Your task to perform on an android device: open app "Booking.com: Hotels and more" (install if not already installed) Image 0: 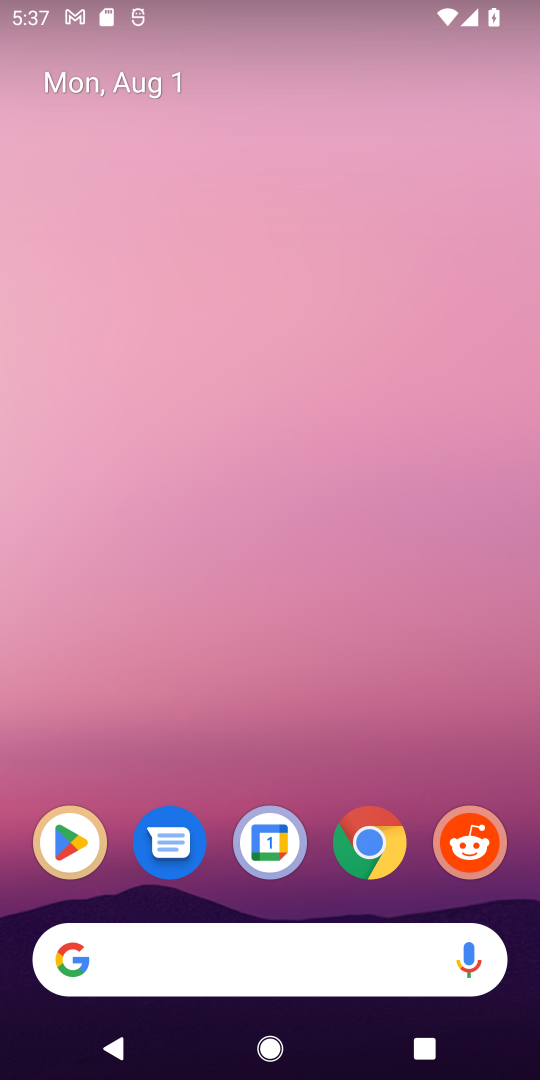
Step 0: drag from (371, 774) to (371, 335)
Your task to perform on an android device: open app "Booking.com: Hotels and more" (install if not already installed) Image 1: 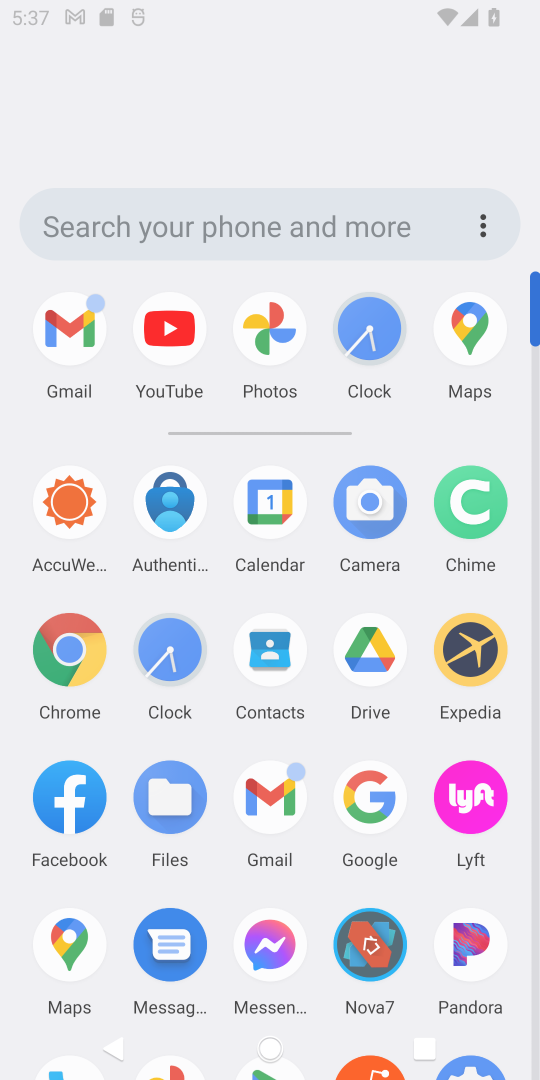
Step 1: drag from (382, 654) to (358, 339)
Your task to perform on an android device: open app "Booking.com: Hotels and more" (install if not already installed) Image 2: 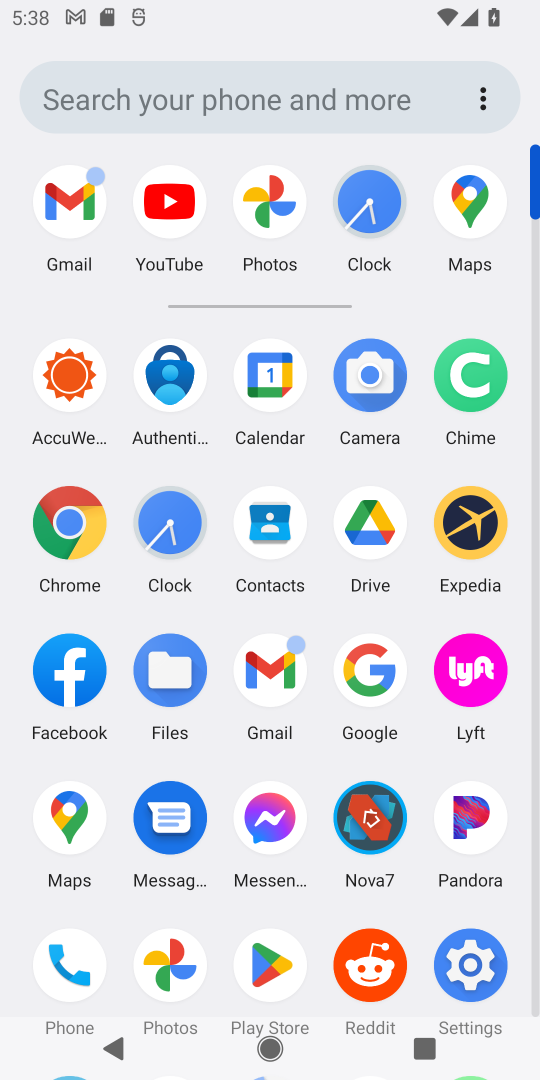
Step 2: click (272, 955)
Your task to perform on an android device: open app "Booking.com: Hotels and more" (install if not already installed) Image 3: 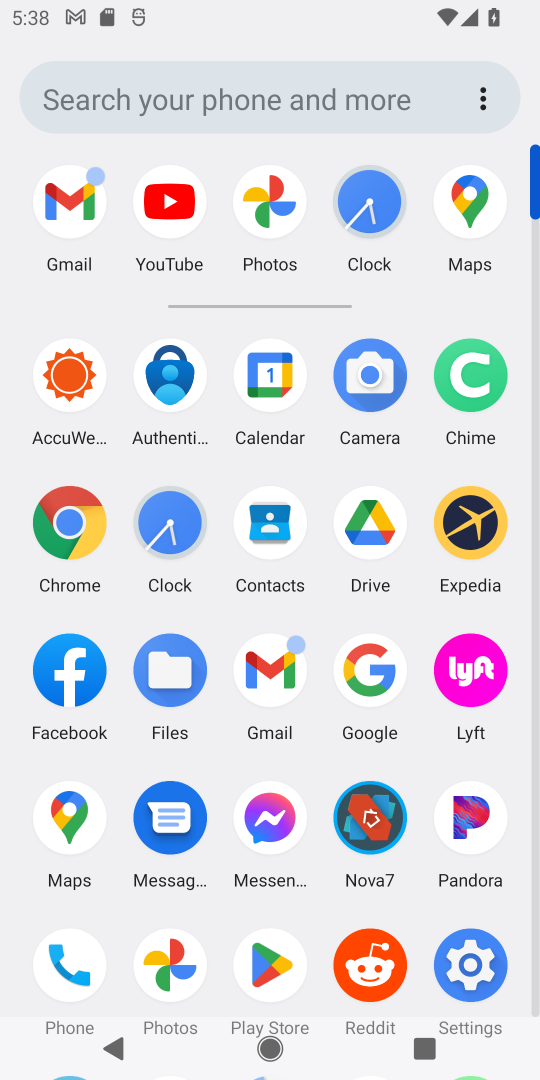
Step 3: click (278, 954)
Your task to perform on an android device: open app "Booking.com: Hotels and more" (install if not already installed) Image 4: 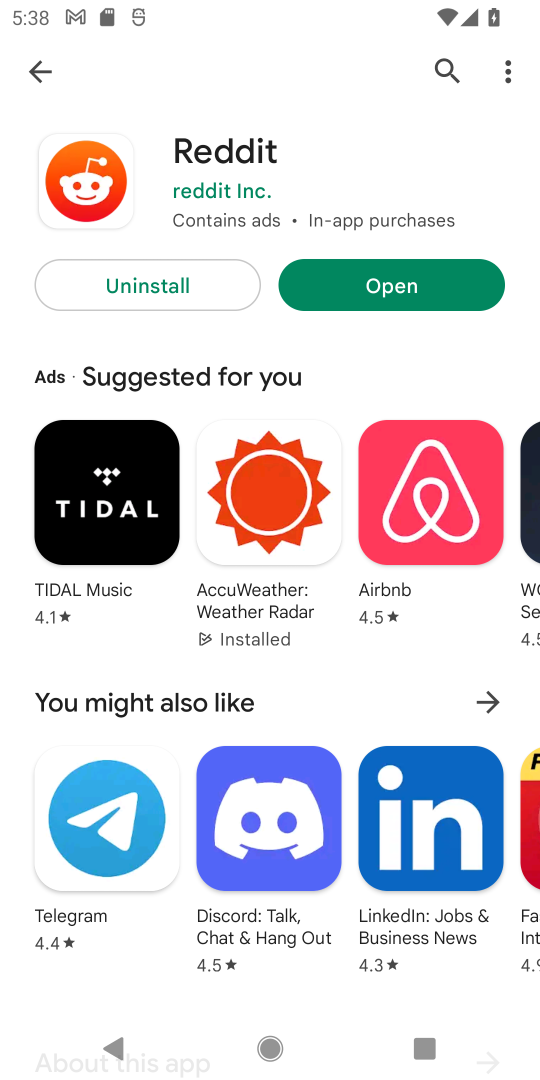
Step 4: click (44, 70)
Your task to perform on an android device: open app "Booking.com: Hotels and more" (install if not already installed) Image 5: 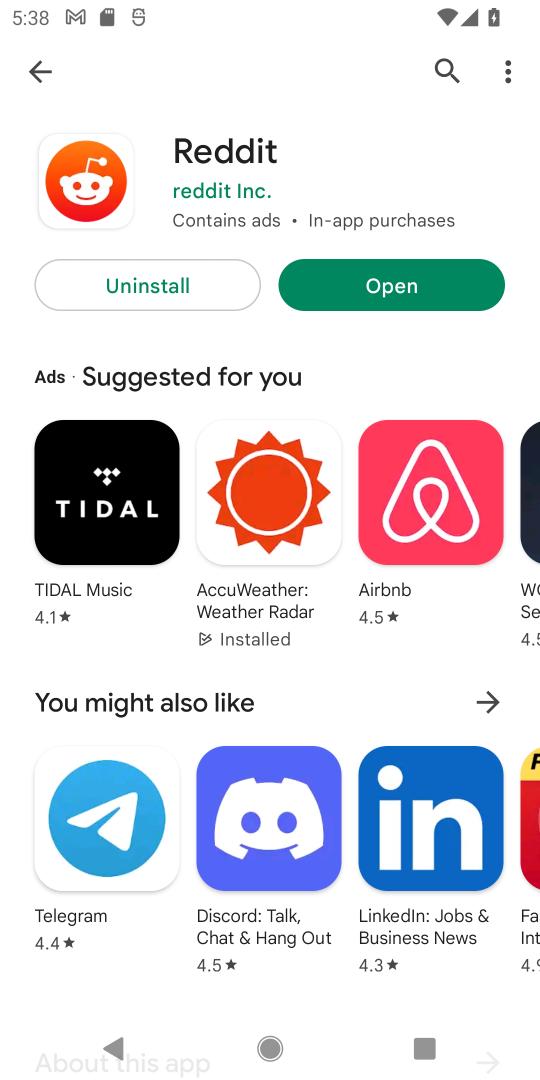
Step 5: click (35, 68)
Your task to perform on an android device: open app "Booking.com: Hotels and more" (install if not already installed) Image 6: 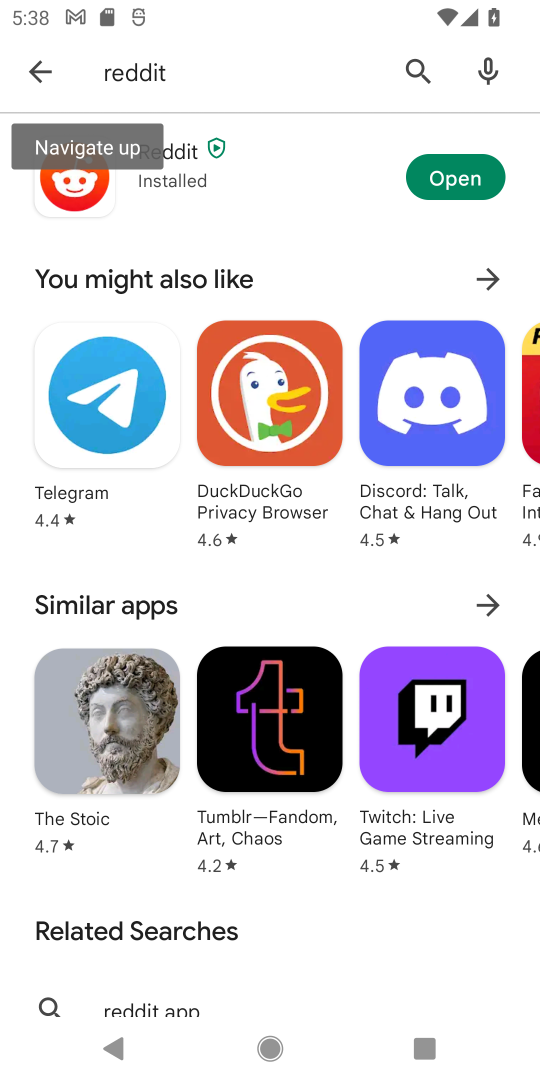
Step 6: click (34, 60)
Your task to perform on an android device: open app "Booking.com: Hotels and more" (install if not already installed) Image 7: 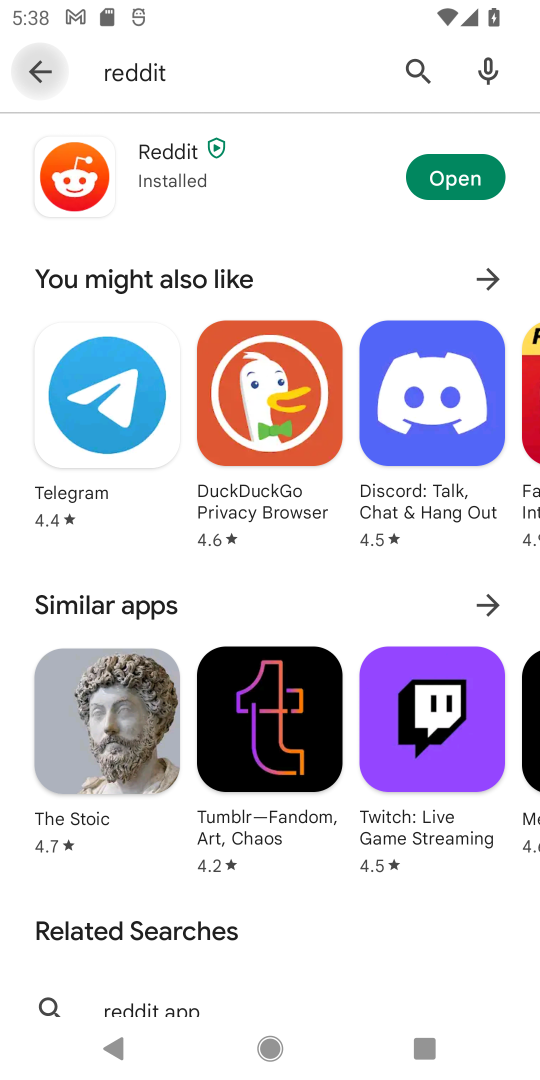
Step 7: click (41, 42)
Your task to perform on an android device: open app "Booking.com: Hotels and more" (install if not already installed) Image 8: 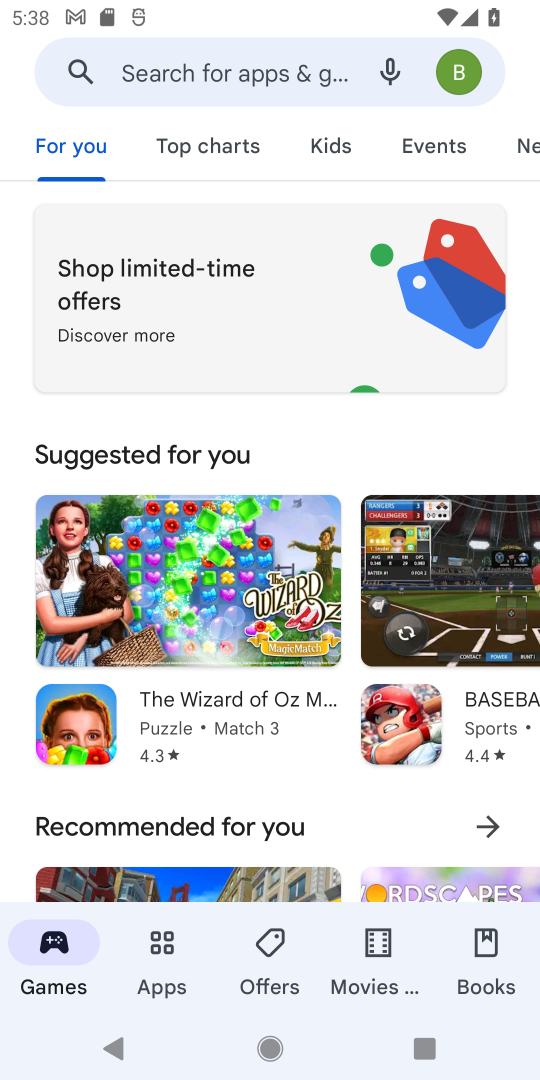
Step 8: click (141, 58)
Your task to perform on an android device: open app "Booking.com: Hotels and more" (install if not already installed) Image 9: 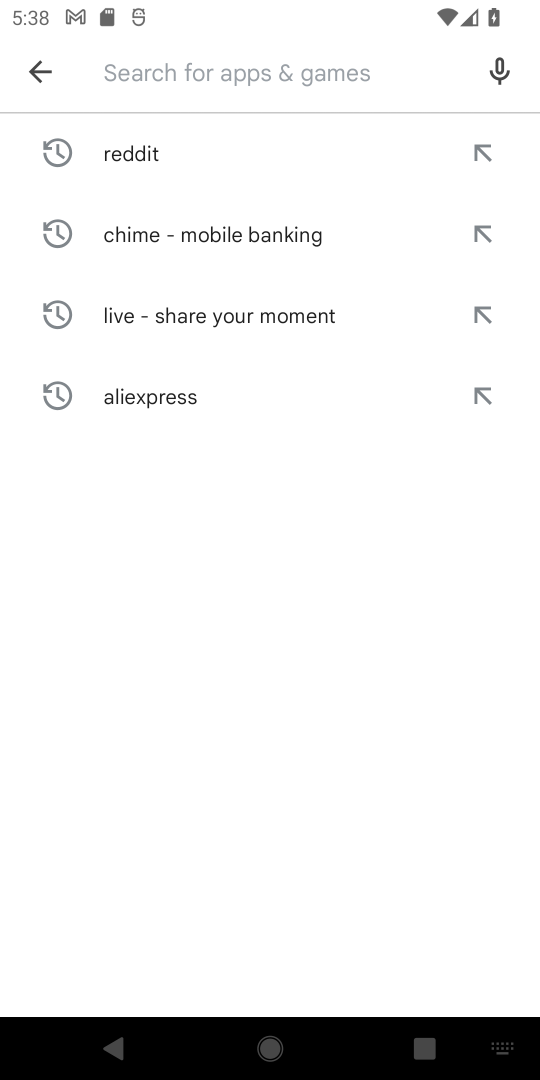
Step 9: type "booking .com: hotels and more"
Your task to perform on an android device: open app "Booking.com: Hotels and more" (install if not already installed) Image 10: 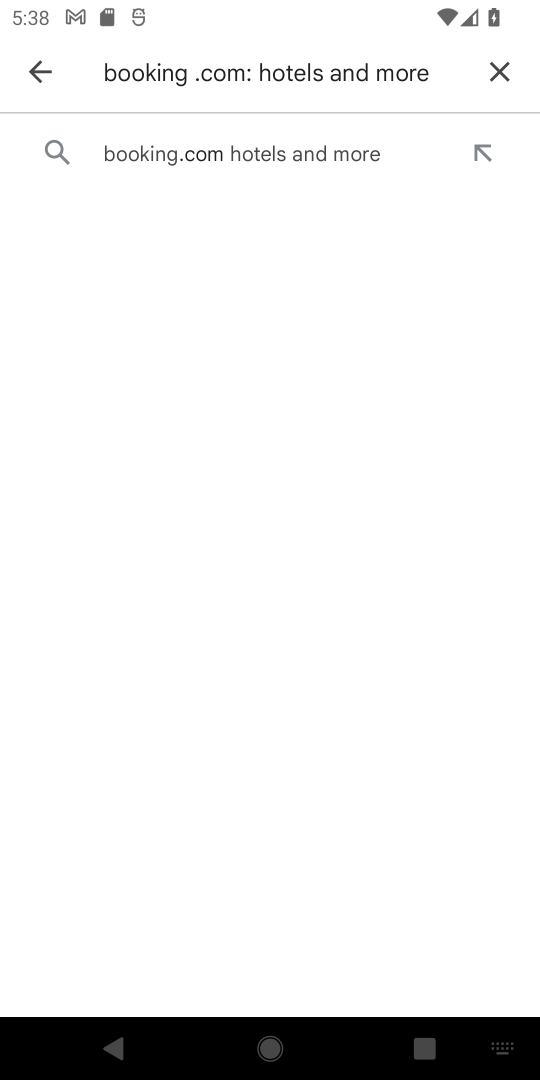
Step 10: click (292, 139)
Your task to perform on an android device: open app "Booking.com: Hotels and more" (install if not already installed) Image 11: 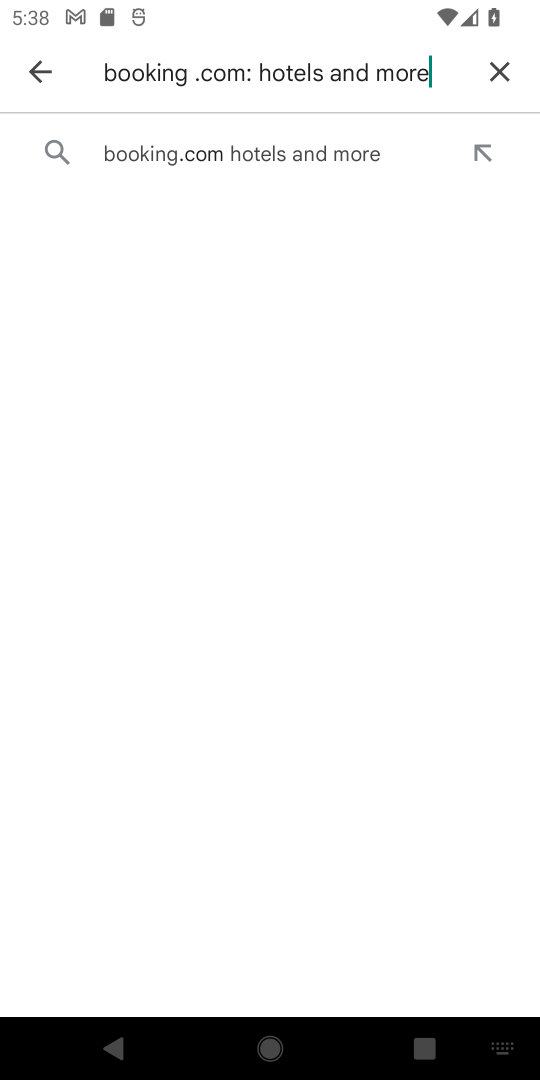
Step 11: click (291, 143)
Your task to perform on an android device: open app "Booking.com: Hotels and more" (install if not already installed) Image 12: 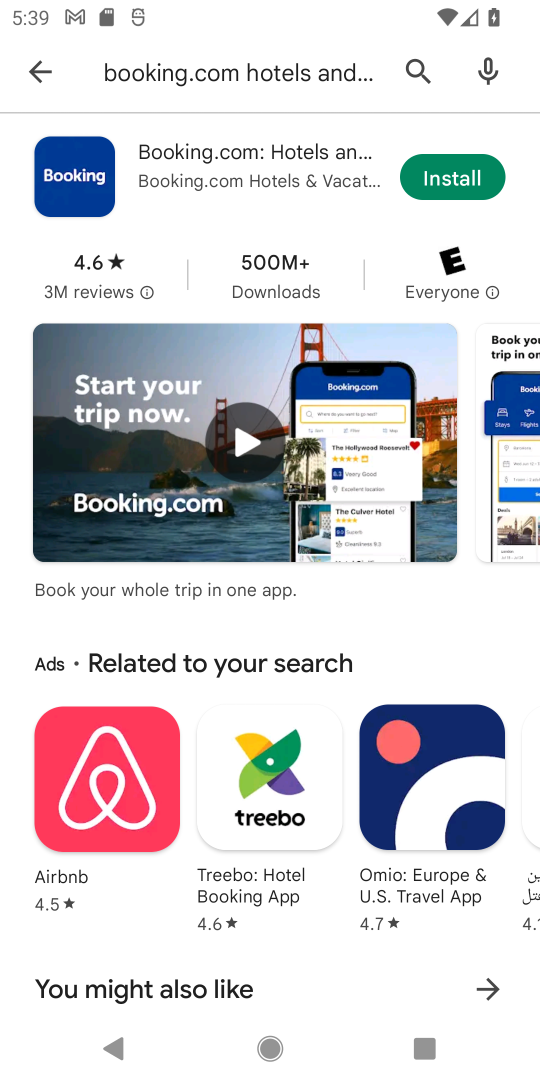
Step 12: click (469, 176)
Your task to perform on an android device: open app "Booking.com: Hotels and more" (install if not already installed) Image 13: 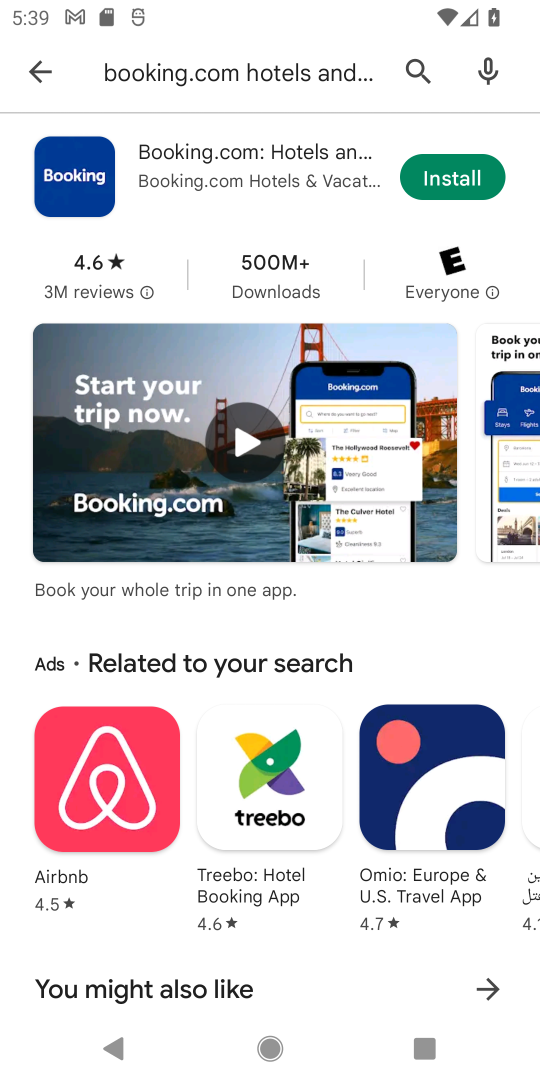
Step 13: click (465, 172)
Your task to perform on an android device: open app "Booking.com: Hotels and more" (install if not already installed) Image 14: 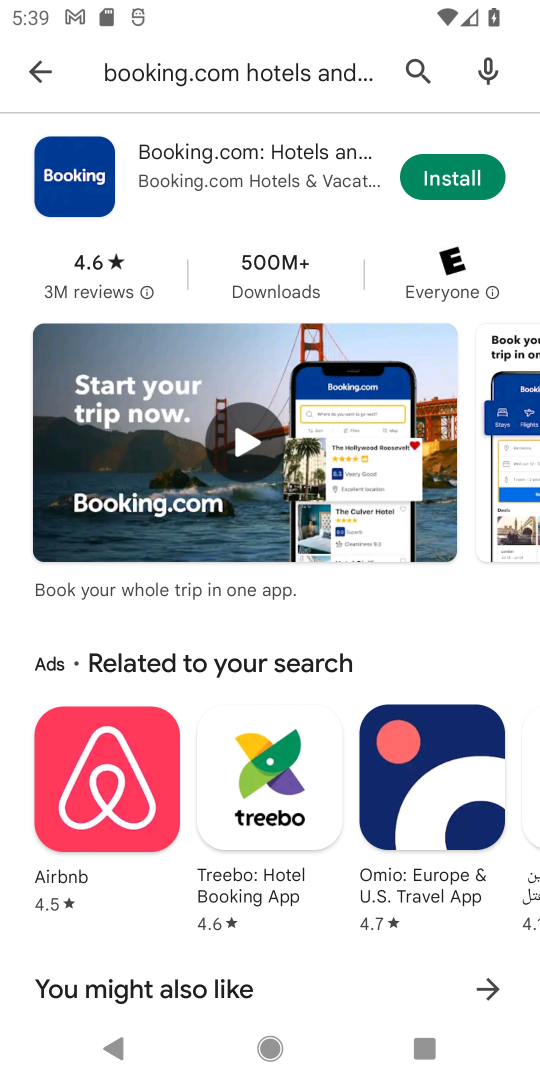
Step 14: click (415, 169)
Your task to perform on an android device: open app "Booking.com: Hotels and more" (install if not already installed) Image 15: 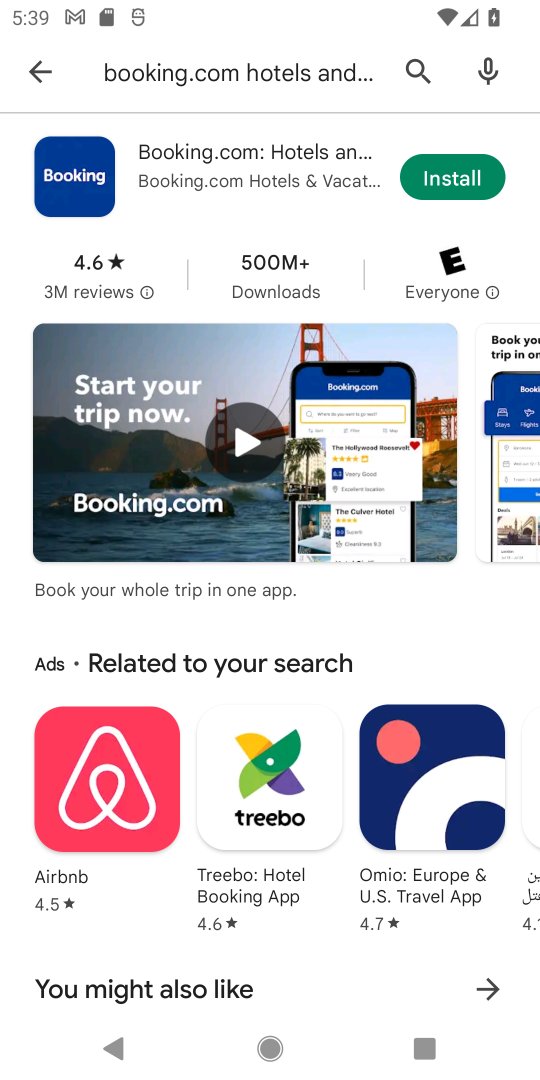
Step 15: click (416, 167)
Your task to perform on an android device: open app "Booking.com: Hotels and more" (install if not already installed) Image 16: 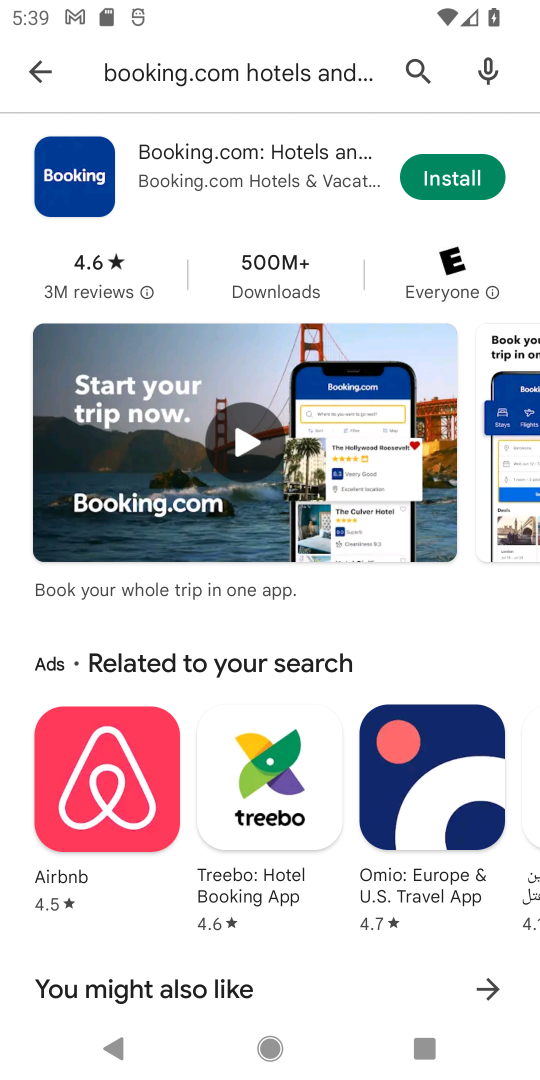
Step 16: click (435, 178)
Your task to perform on an android device: open app "Booking.com: Hotels and more" (install if not already installed) Image 17: 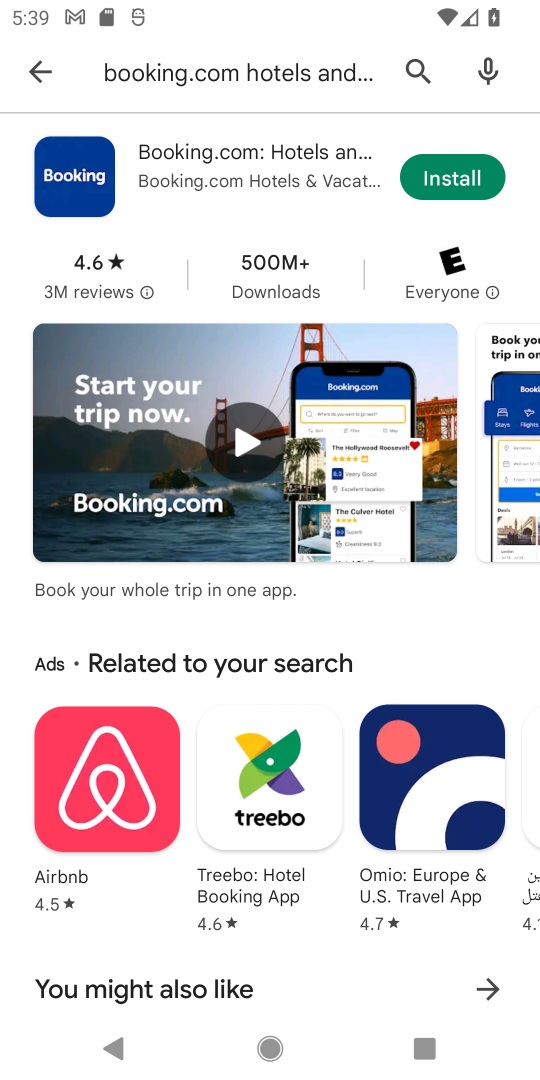
Step 17: click (435, 178)
Your task to perform on an android device: open app "Booking.com: Hotels and more" (install if not already installed) Image 18: 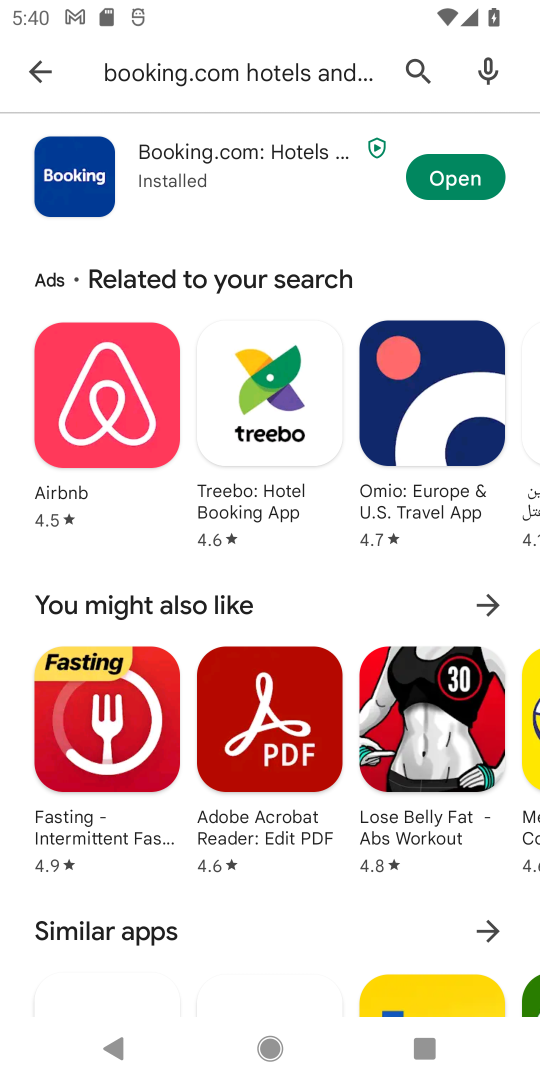
Step 18: click (490, 190)
Your task to perform on an android device: open app "Booking.com: Hotels and more" (install if not already installed) Image 19: 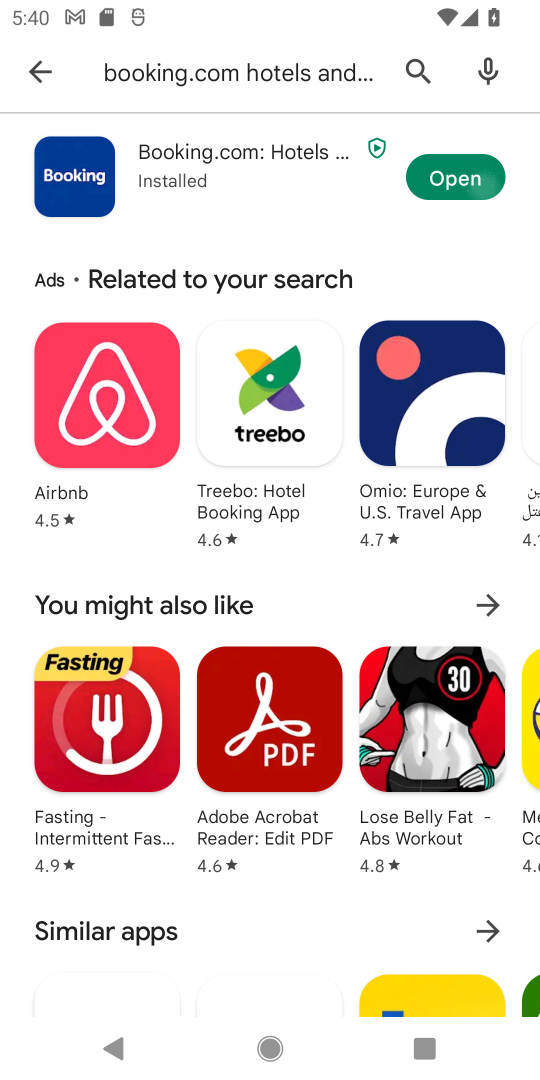
Step 19: click (489, 187)
Your task to perform on an android device: open app "Booking.com: Hotels and more" (install if not already installed) Image 20: 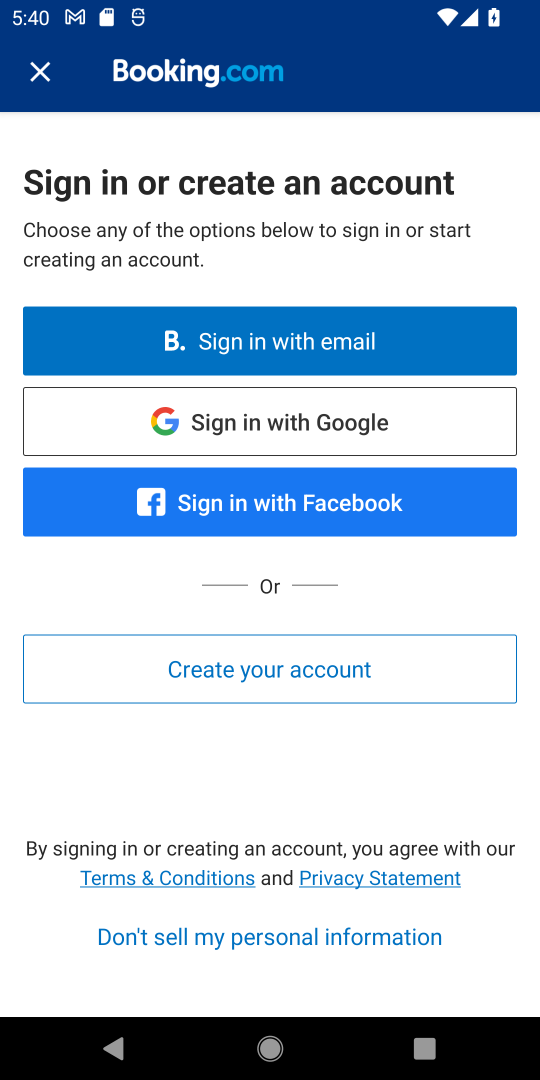
Step 20: press back button
Your task to perform on an android device: open app "Booking.com: Hotels and more" (install if not already installed) Image 21: 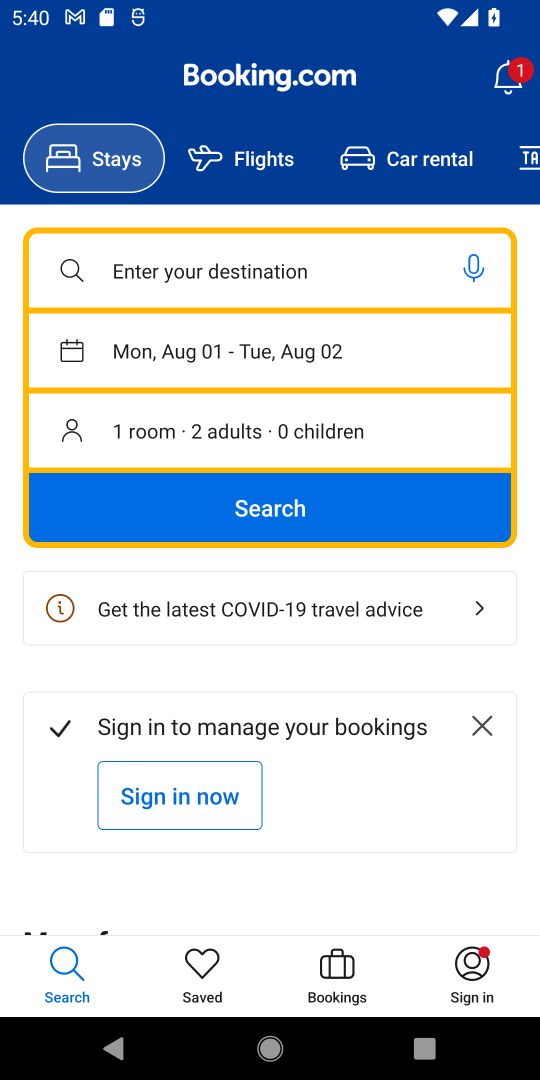
Step 21: press home button
Your task to perform on an android device: open app "Booking.com: Hotels and more" (install if not already installed) Image 22: 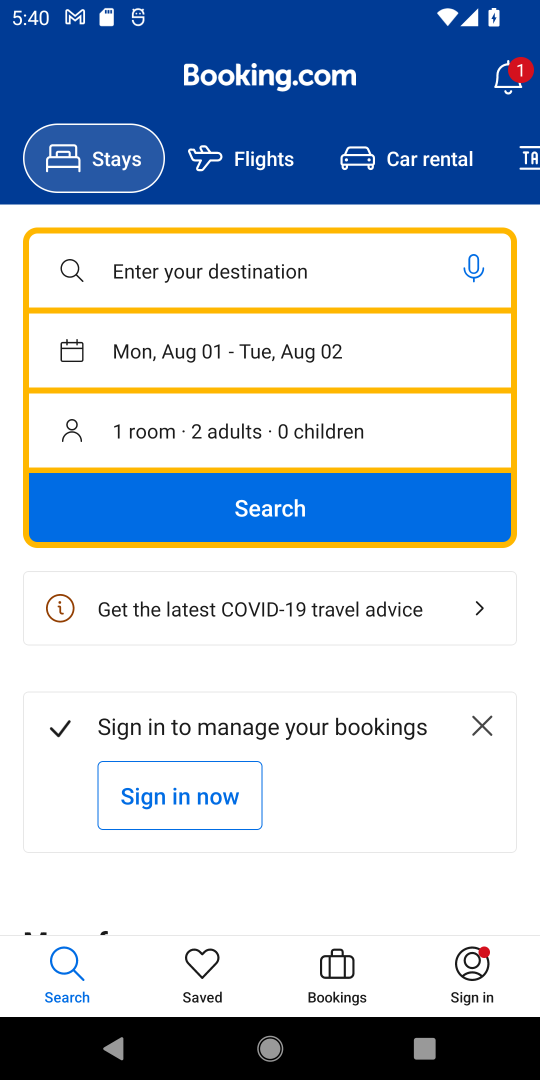
Step 22: press home button
Your task to perform on an android device: open app "Booking.com: Hotels and more" (install if not already installed) Image 23: 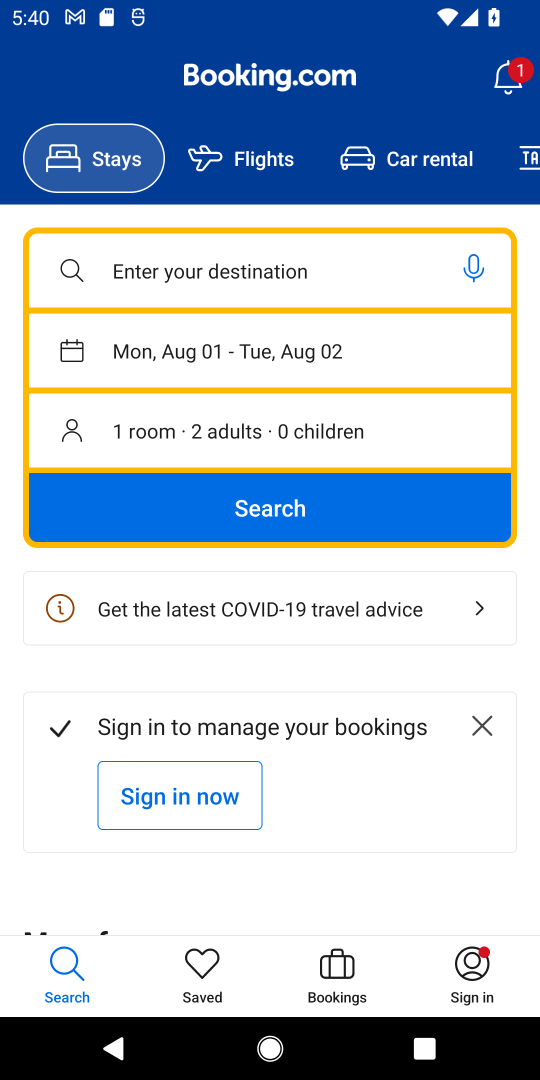
Step 23: press home button
Your task to perform on an android device: open app "Booking.com: Hotels and more" (install if not already installed) Image 24: 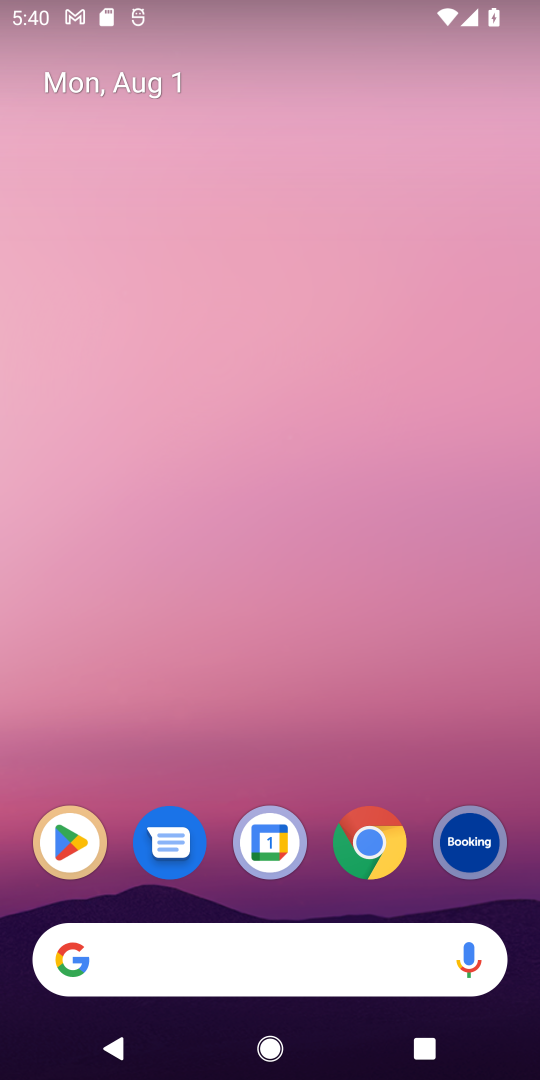
Step 24: drag from (357, 705) to (234, 148)
Your task to perform on an android device: open app "Booking.com: Hotels and more" (install if not already installed) Image 25: 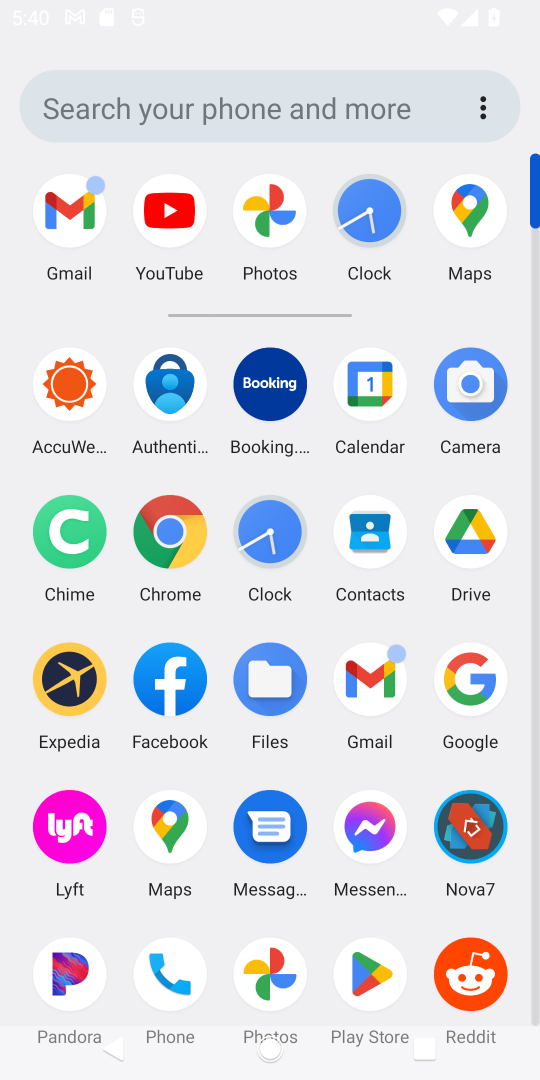
Step 25: drag from (298, 493) to (253, 84)
Your task to perform on an android device: open app "Booking.com: Hotels and more" (install if not already installed) Image 26: 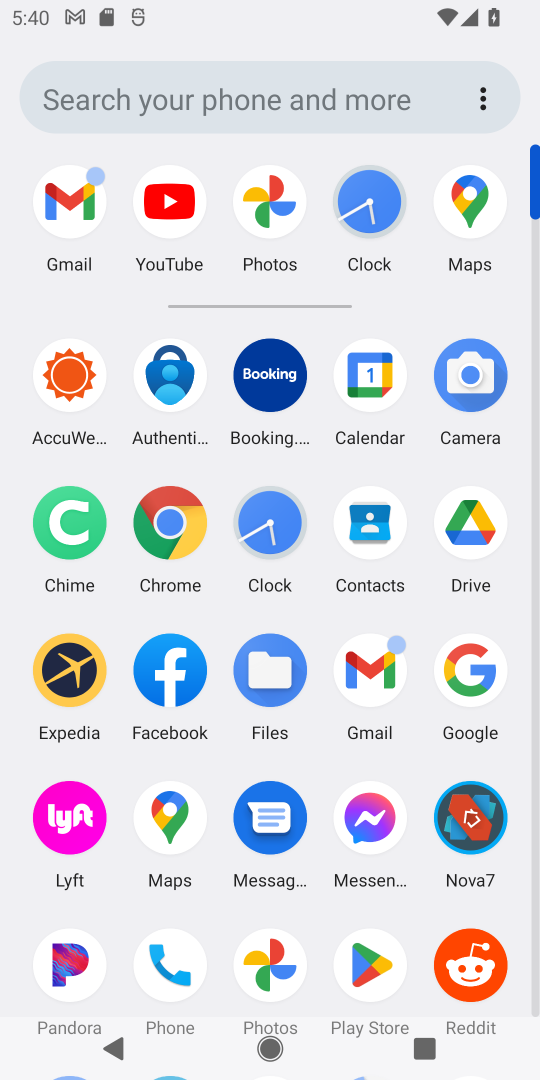
Step 26: drag from (347, 631) to (313, 9)
Your task to perform on an android device: open app "Booking.com: Hotels and more" (install if not already installed) Image 27: 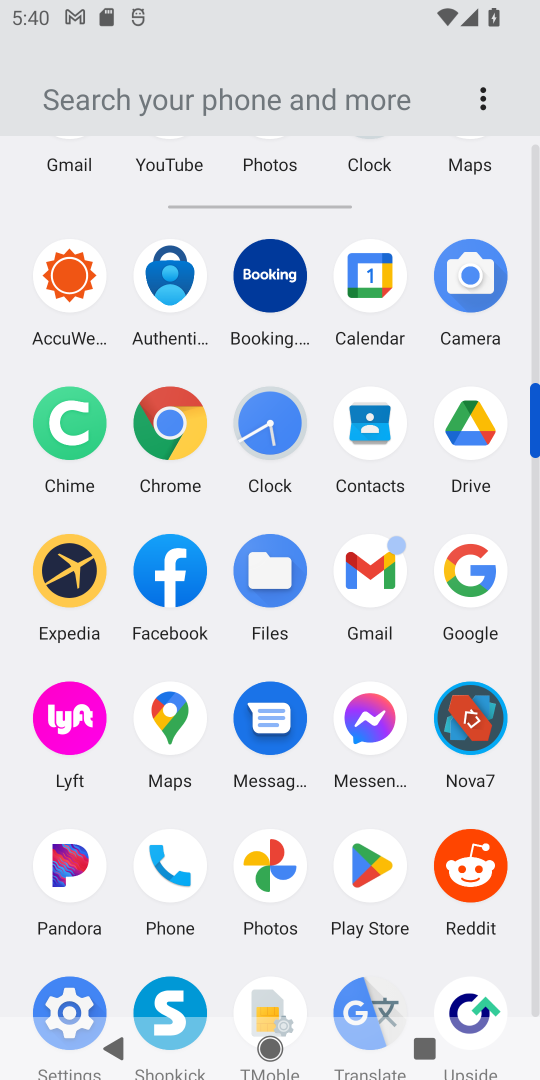
Step 27: click (375, 852)
Your task to perform on an android device: open app "Booking.com: Hotels and more" (install if not already installed) Image 28: 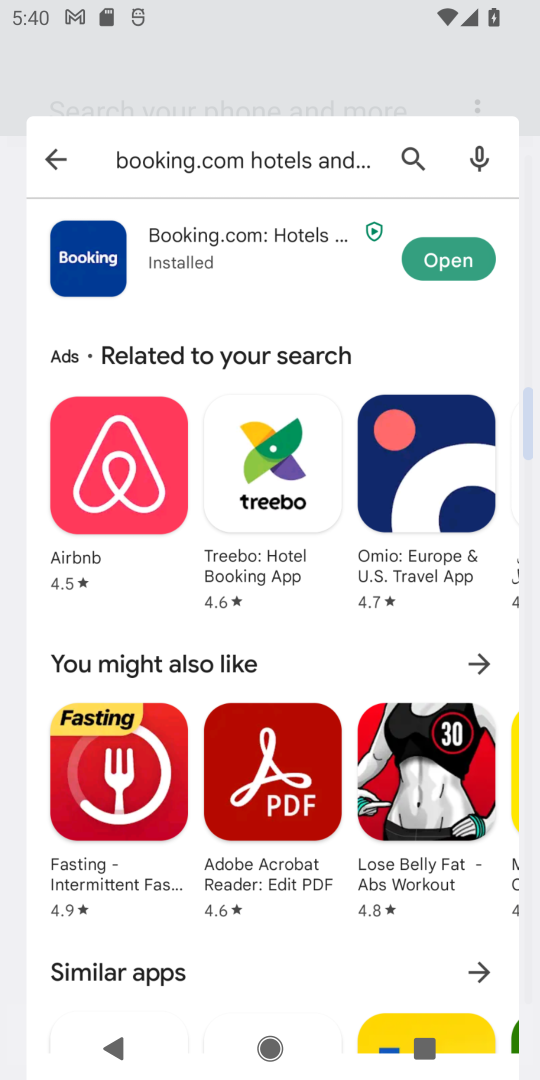
Step 28: click (374, 848)
Your task to perform on an android device: open app "Booking.com: Hotels and more" (install if not already installed) Image 29: 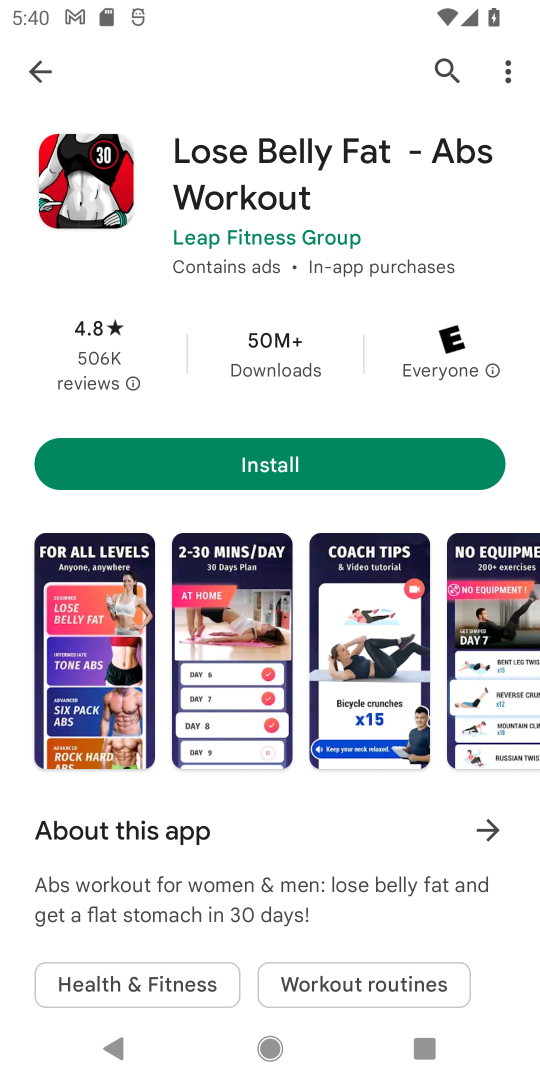
Step 29: click (31, 71)
Your task to perform on an android device: open app "Booking.com: Hotels and more" (install if not already installed) Image 30: 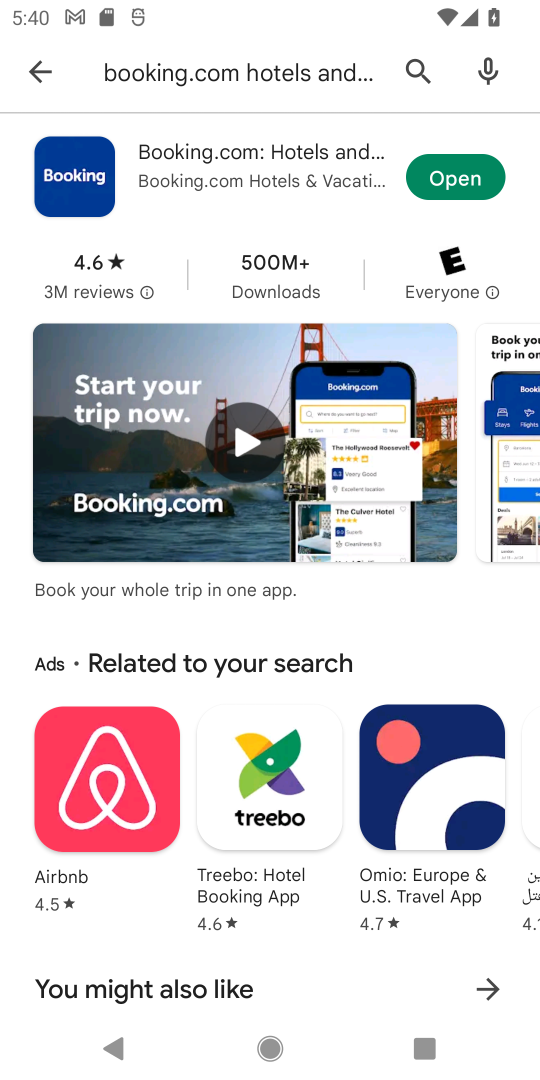
Step 30: click (129, 76)
Your task to perform on an android device: open app "Booking.com: Hotels and more" (install if not already installed) Image 31: 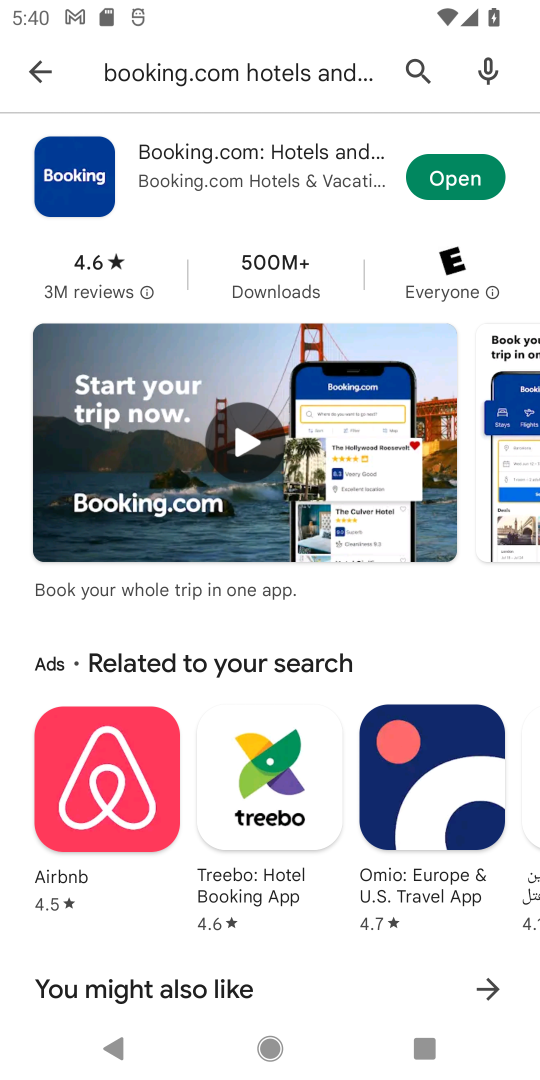
Step 31: click (131, 74)
Your task to perform on an android device: open app "Booking.com: Hotels and more" (install if not already installed) Image 32: 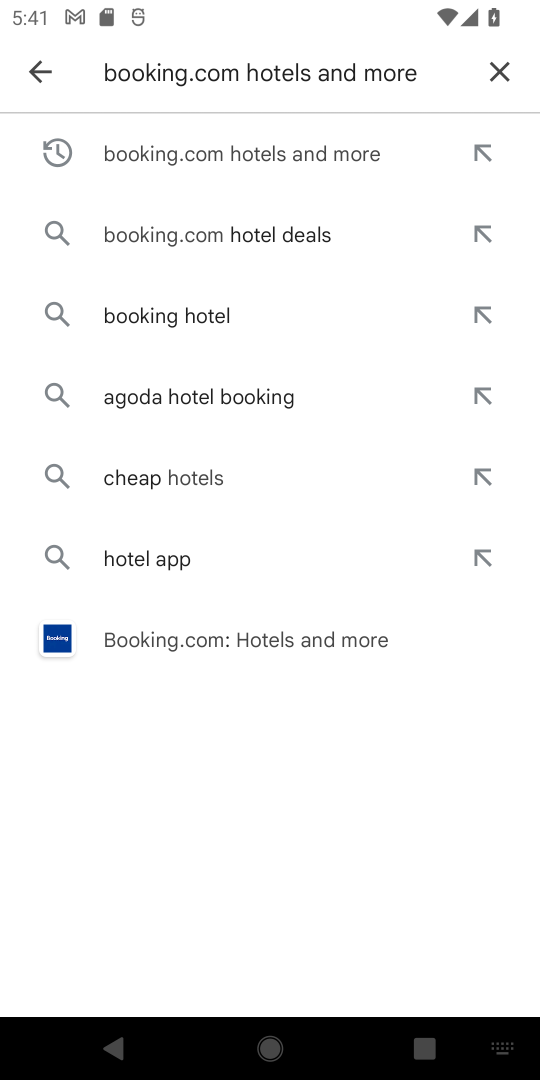
Step 32: click (305, 170)
Your task to perform on an android device: open app "Booking.com: Hotels and more" (install if not already installed) Image 33: 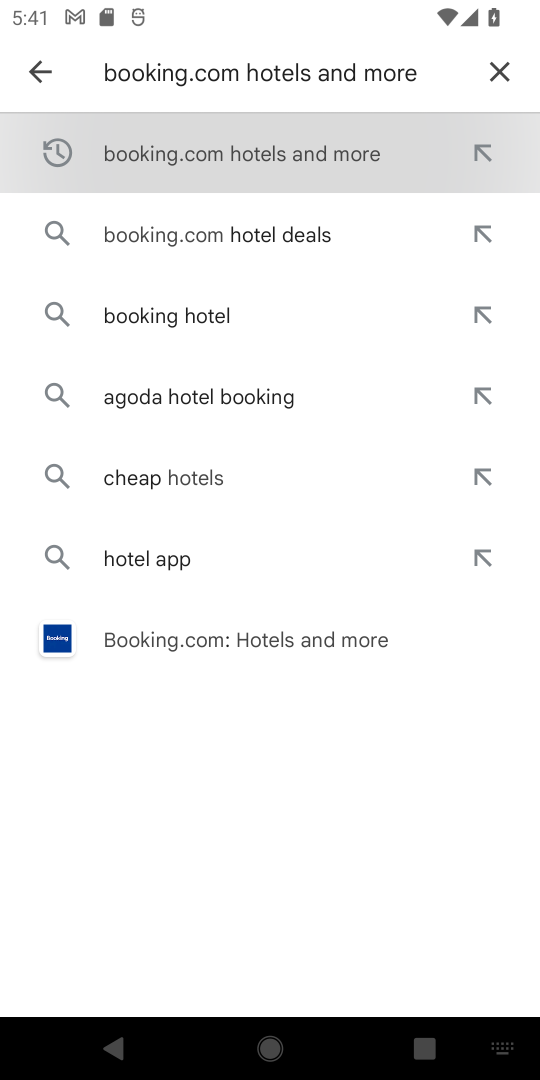
Step 33: click (303, 171)
Your task to perform on an android device: open app "Booking.com: Hotels and more" (install if not already installed) Image 34: 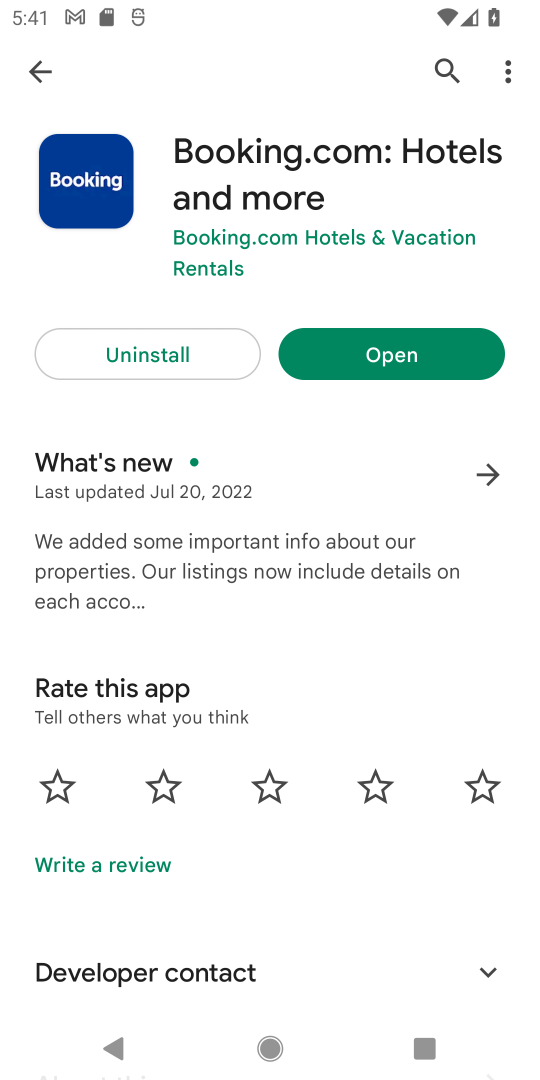
Step 34: click (457, 356)
Your task to perform on an android device: open app "Booking.com: Hotels and more" (install if not already installed) Image 35: 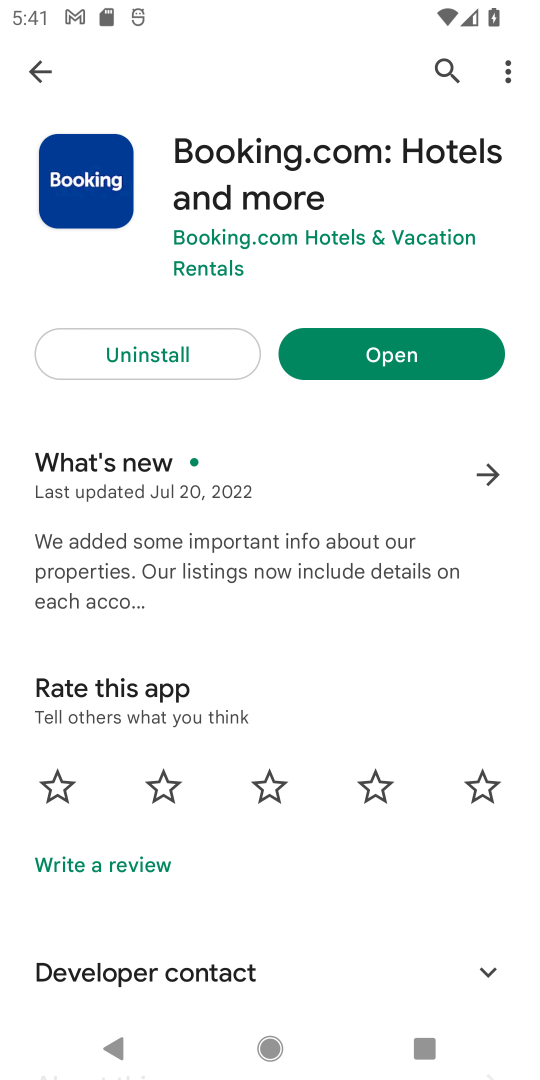
Step 35: click (456, 355)
Your task to perform on an android device: open app "Booking.com: Hotels and more" (install if not already installed) Image 36: 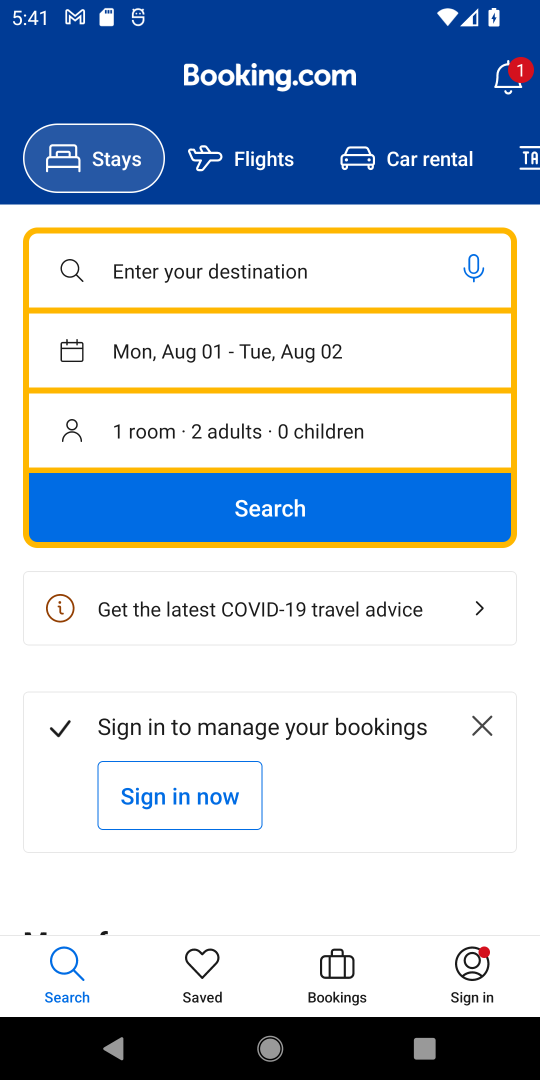
Step 36: click (474, 712)
Your task to perform on an android device: open app "Booking.com: Hotels and more" (install if not already installed) Image 37: 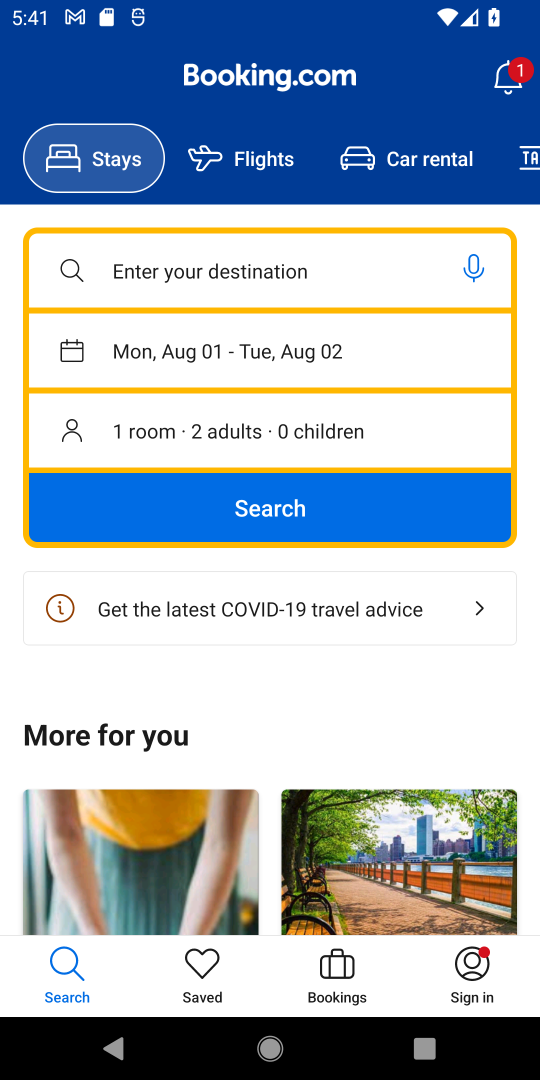
Step 37: task complete